Your task to perform on an android device: Open the map Image 0: 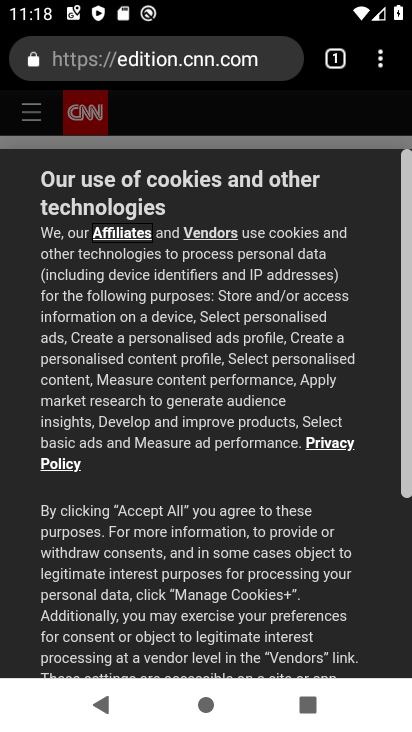
Step 0: press home button
Your task to perform on an android device: Open the map Image 1: 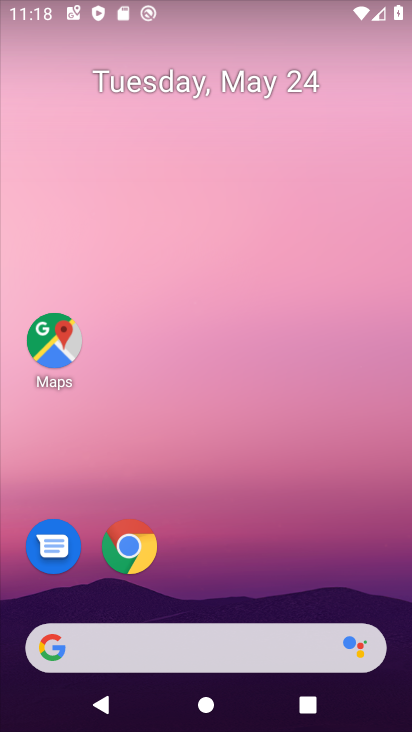
Step 1: drag from (232, 589) to (202, 236)
Your task to perform on an android device: Open the map Image 2: 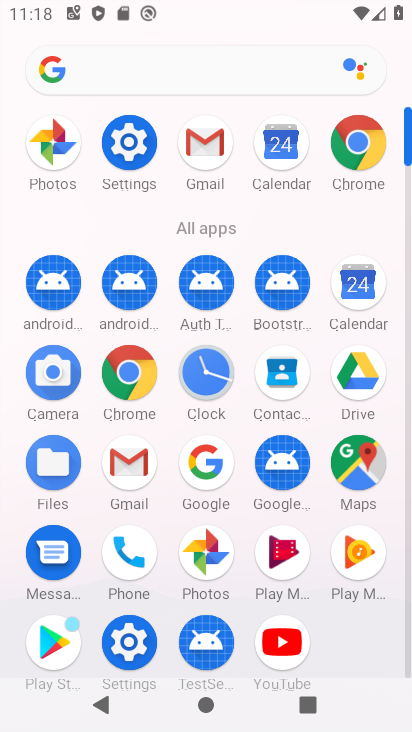
Step 2: click (348, 441)
Your task to perform on an android device: Open the map Image 3: 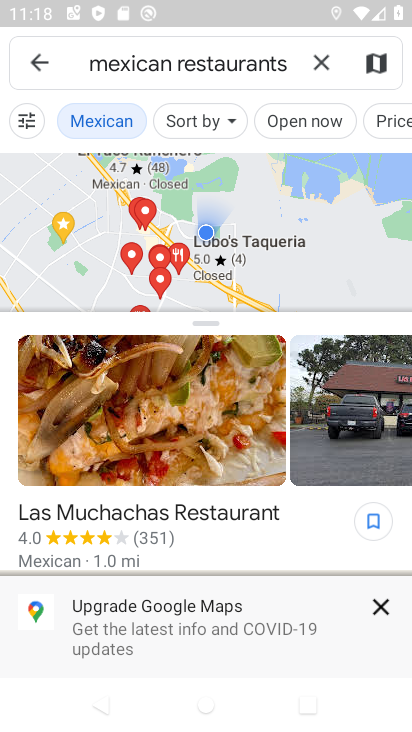
Step 3: task complete